Your task to perform on an android device: check android version Image 0: 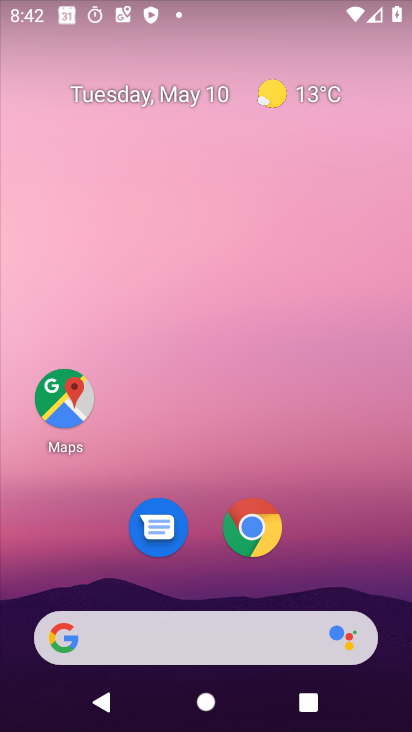
Step 0: drag from (25, 620) to (270, 142)
Your task to perform on an android device: check android version Image 1: 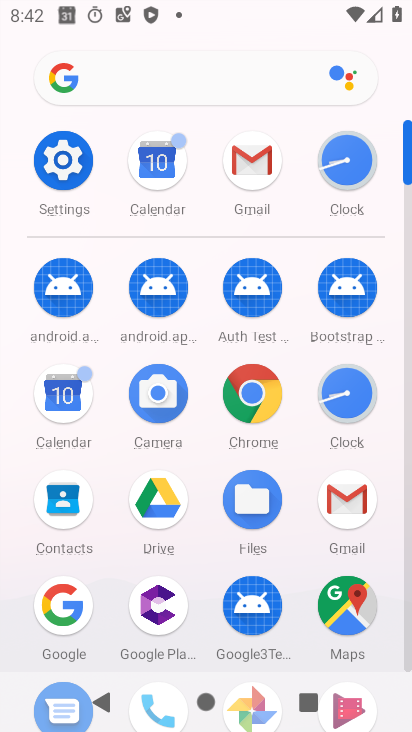
Step 1: click (82, 164)
Your task to perform on an android device: check android version Image 2: 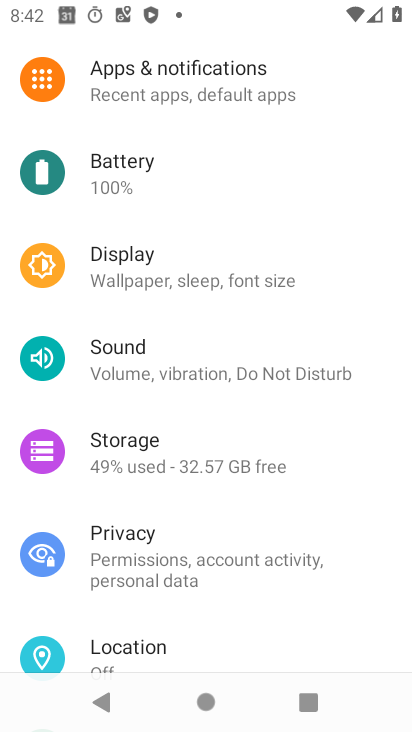
Step 2: drag from (136, 611) to (292, 257)
Your task to perform on an android device: check android version Image 3: 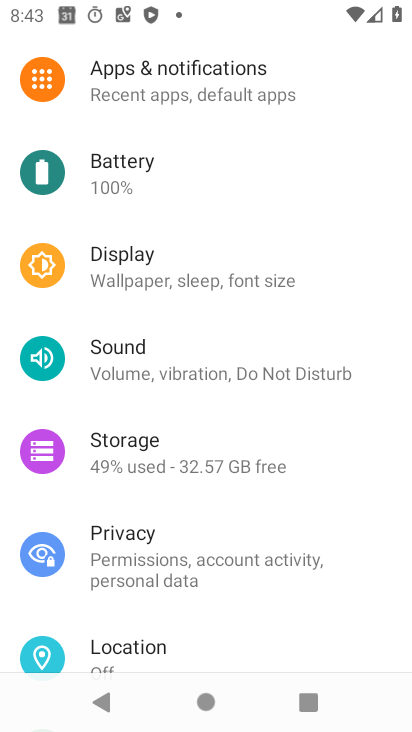
Step 3: drag from (130, 454) to (246, 111)
Your task to perform on an android device: check android version Image 4: 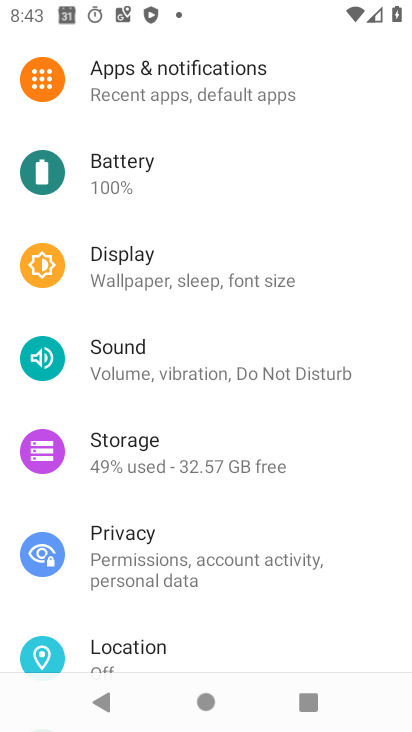
Step 4: drag from (126, 665) to (332, 60)
Your task to perform on an android device: check android version Image 5: 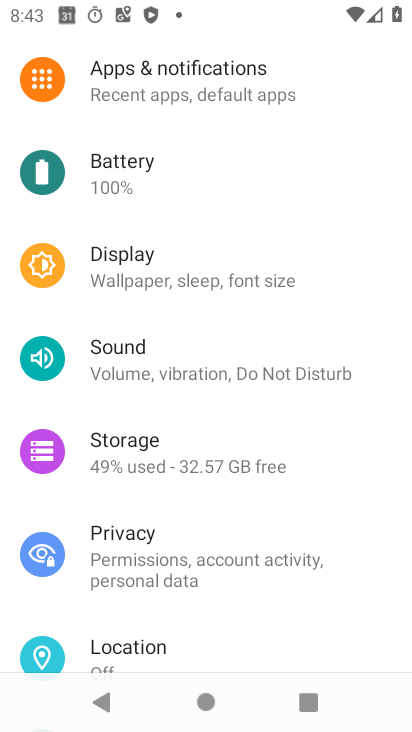
Step 5: drag from (53, 685) to (303, 61)
Your task to perform on an android device: check android version Image 6: 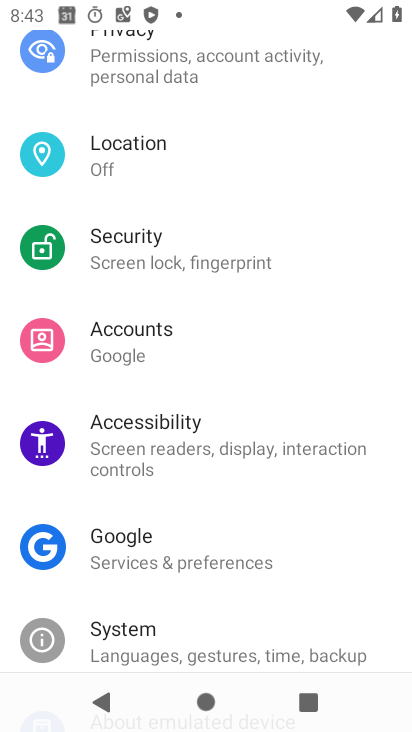
Step 6: drag from (22, 536) to (281, 57)
Your task to perform on an android device: check android version Image 7: 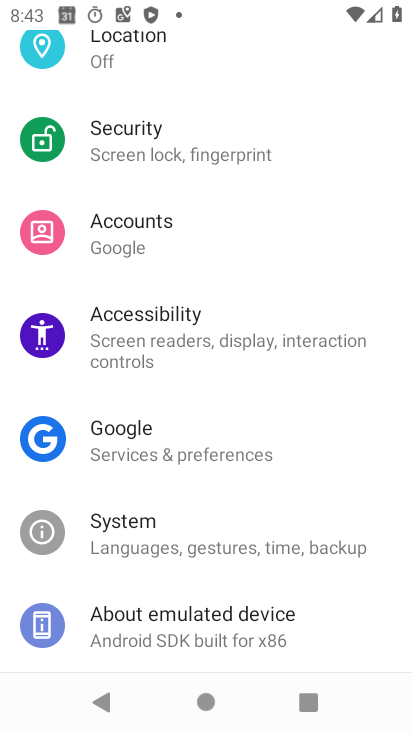
Step 7: drag from (16, 611) to (257, 85)
Your task to perform on an android device: check android version Image 8: 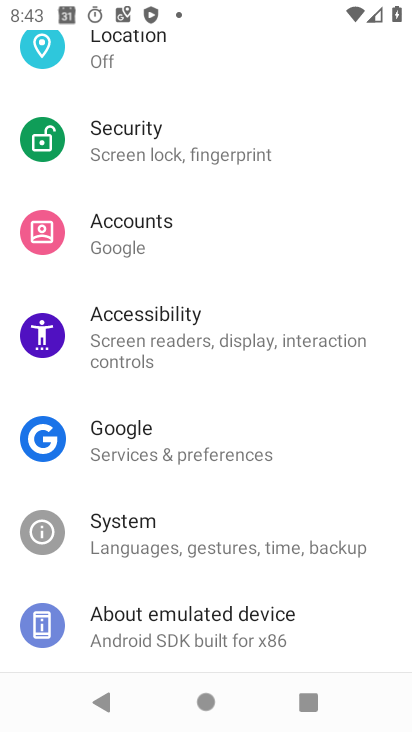
Step 8: click (121, 615)
Your task to perform on an android device: check android version Image 9: 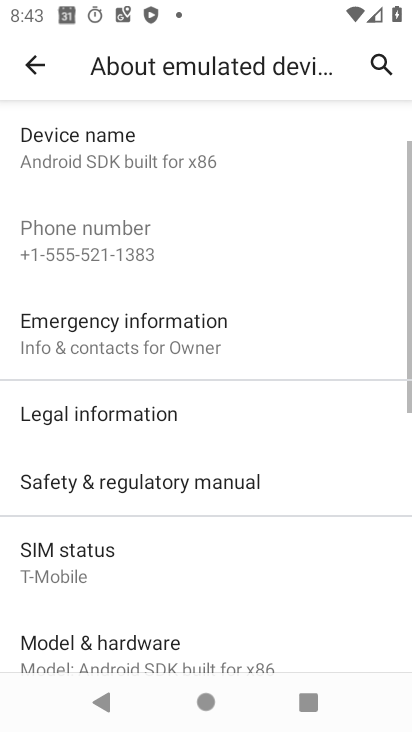
Step 9: drag from (89, 634) to (239, 147)
Your task to perform on an android device: check android version Image 10: 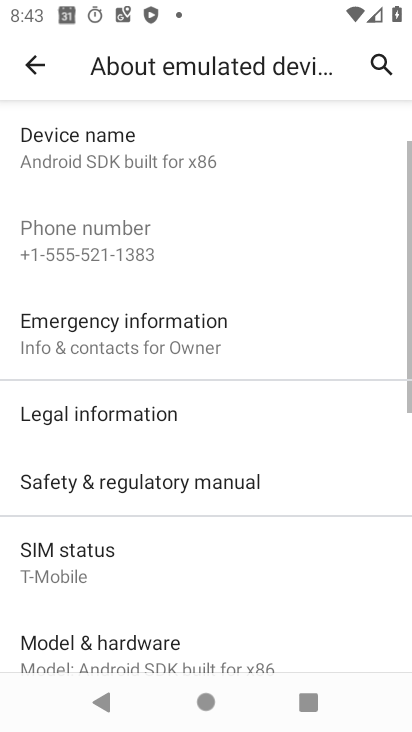
Step 10: drag from (85, 631) to (346, 83)
Your task to perform on an android device: check android version Image 11: 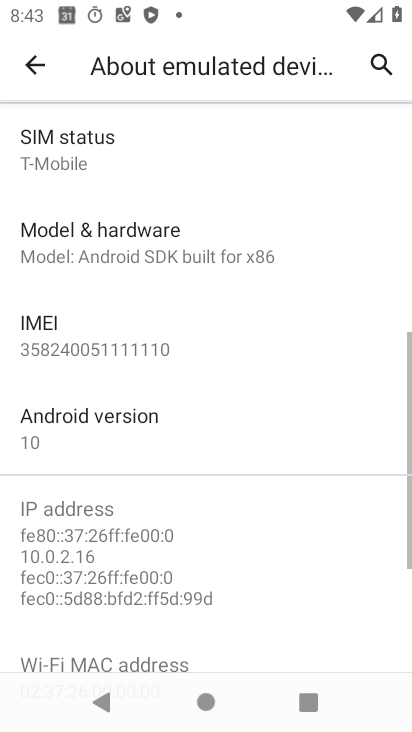
Step 11: drag from (30, 624) to (284, 169)
Your task to perform on an android device: check android version Image 12: 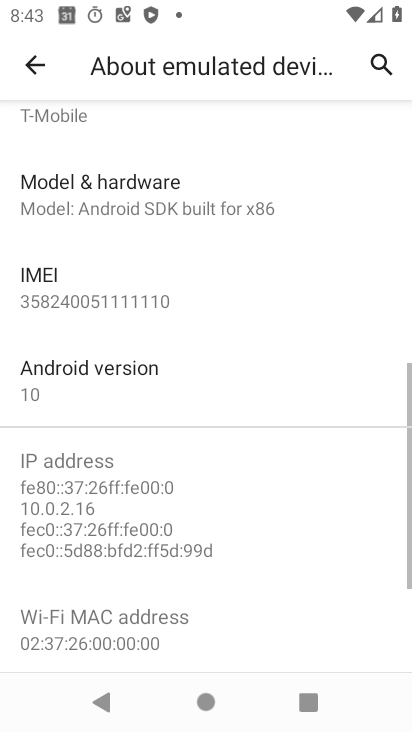
Step 12: drag from (4, 648) to (282, 180)
Your task to perform on an android device: check android version Image 13: 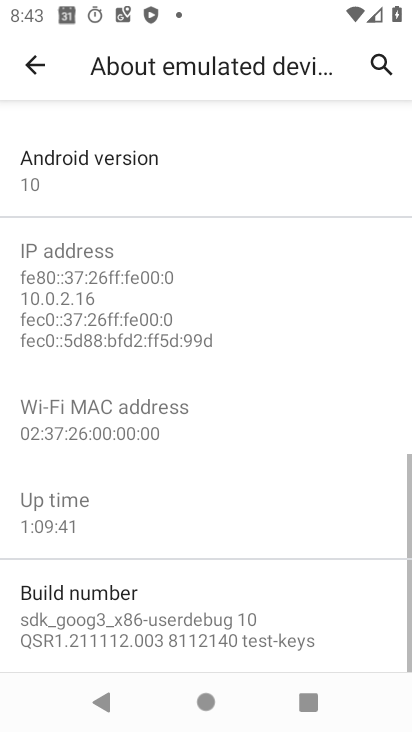
Step 13: drag from (119, 594) to (319, 196)
Your task to perform on an android device: check android version Image 14: 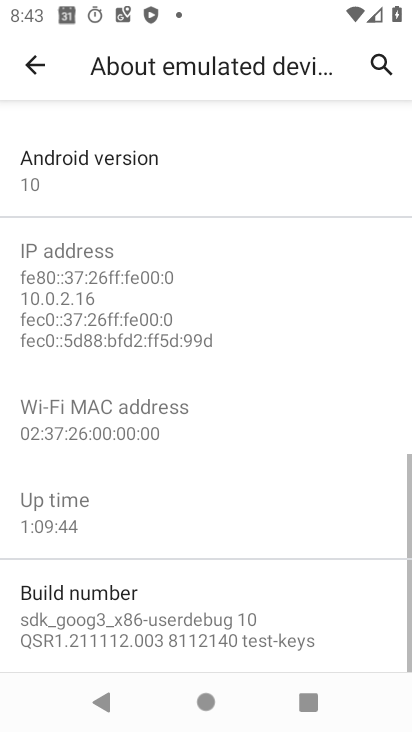
Step 14: click (165, 164)
Your task to perform on an android device: check android version Image 15: 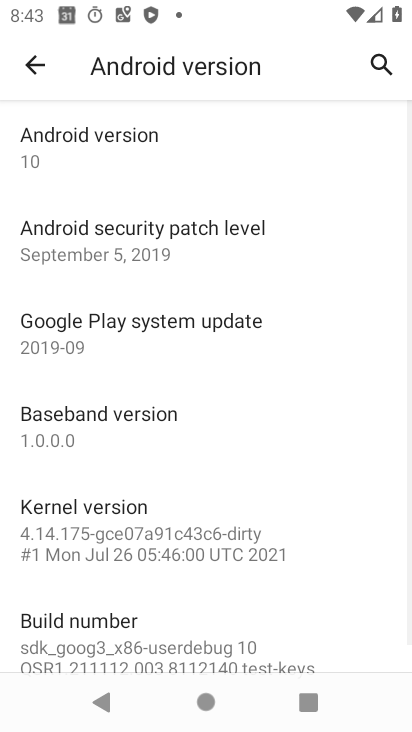
Step 15: task complete